Your task to perform on an android device: allow cookies in the chrome app Image 0: 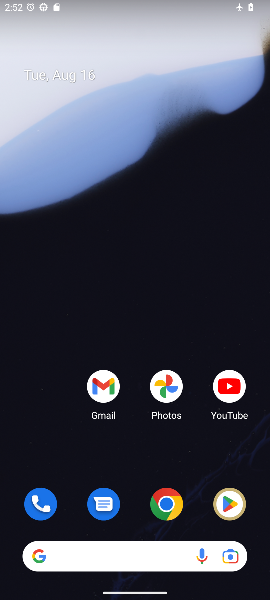
Step 0: click (166, 504)
Your task to perform on an android device: allow cookies in the chrome app Image 1: 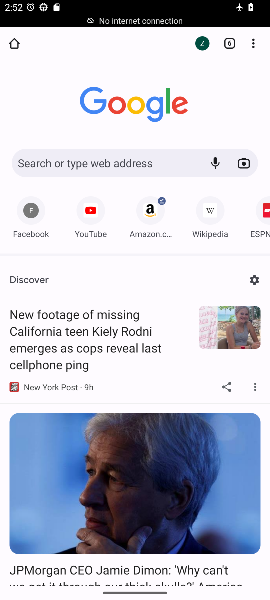
Step 1: click (252, 39)
Your task to perform on an android device: allow cookies in the chrome app Image 2: 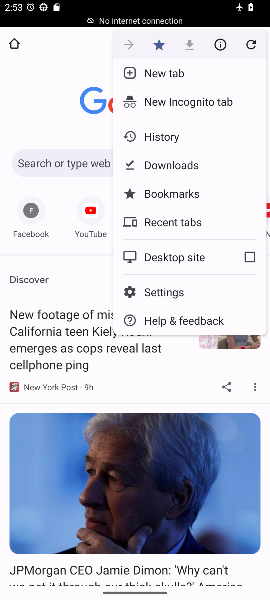
Step 2: click (171, 289)
Your task to perform on an android device: allow cookies in the chrome app Image 3: 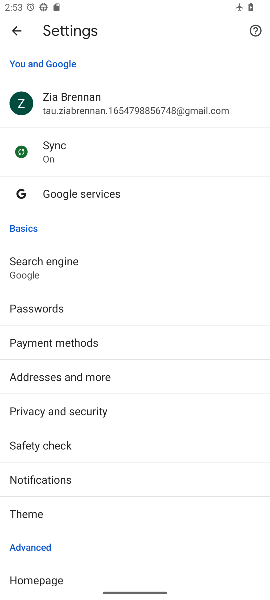
Step 3: drag from (148, 519) to (142, 212)
Your task to perform on an android device: allow cookies in the chrome app Image 4: 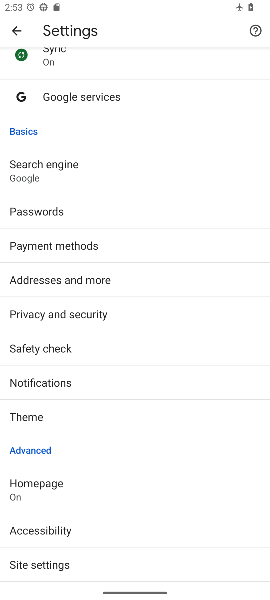
Step 4: click (49, 563)
Your task to perform on an android device: allow cookies in the chrome app Image 5: 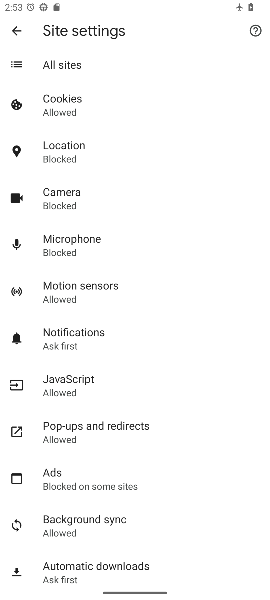
Step 5: click (62, 118)
Your task to perform on an android device: allow cookies in the chrome app Image 6: 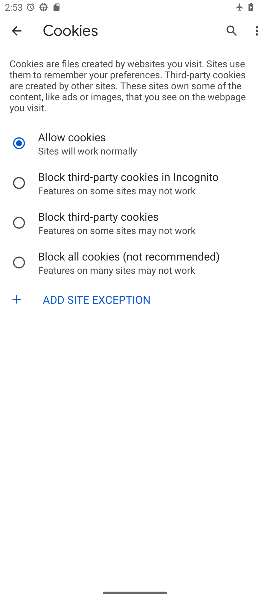
Step 6: task complete